Your task to perform on an android device: Check the weather Image 0: 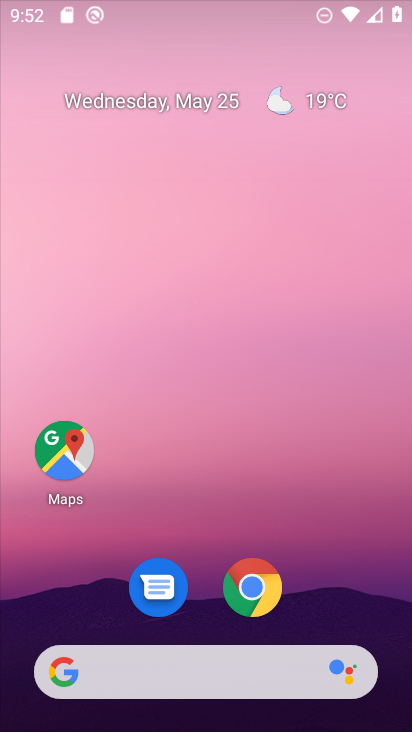
Step 0: press home button
Your task to perform on an android device: Check the weather Image 1: 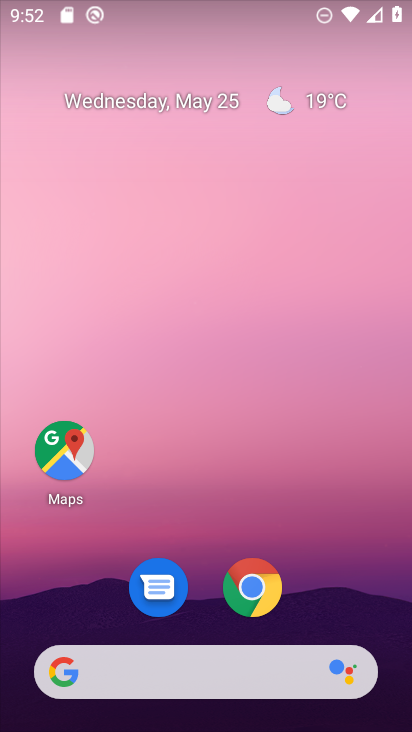
Step 1: click (314, 94)
Your task to perform on an android device: Check the weather Image 2: 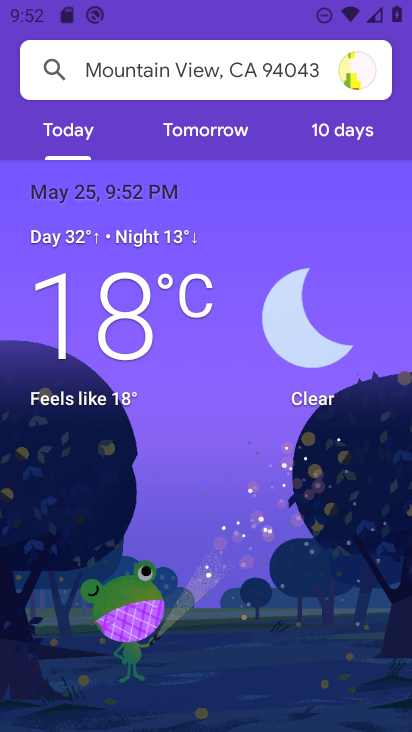
Step 2: drag from (283, 609) to (251, 292)
Your task to perform on an android device: Check the weather Image 3: 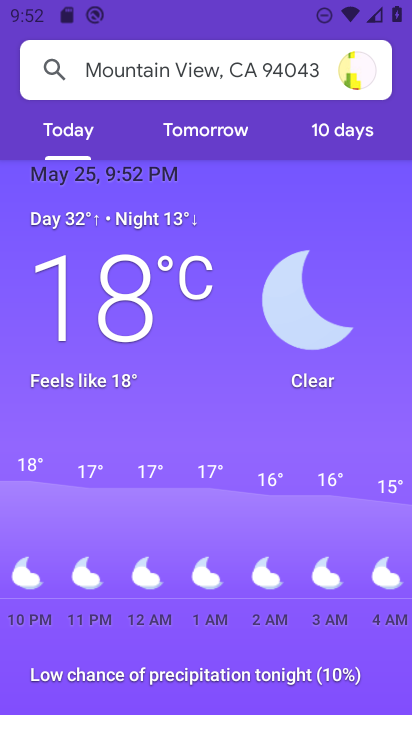
Step 3: drag from (386, 578) to (117, 581)
Your task to perform on an android device: Check the weather Image 4: 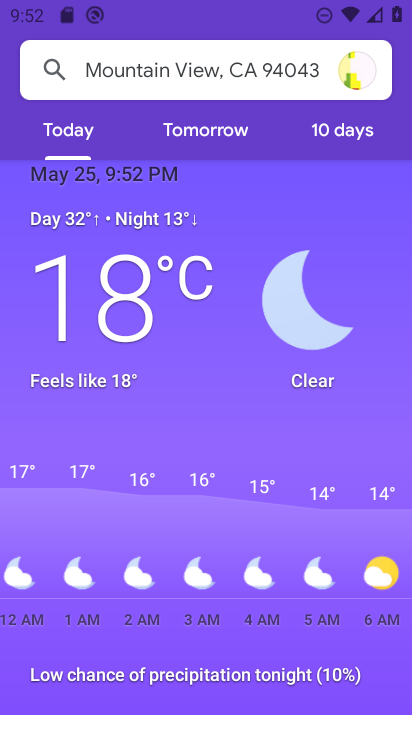
Step 4: drag from (371, 578) to (32, 570)
Your task to perform on an android device: Check the weather Image 5: 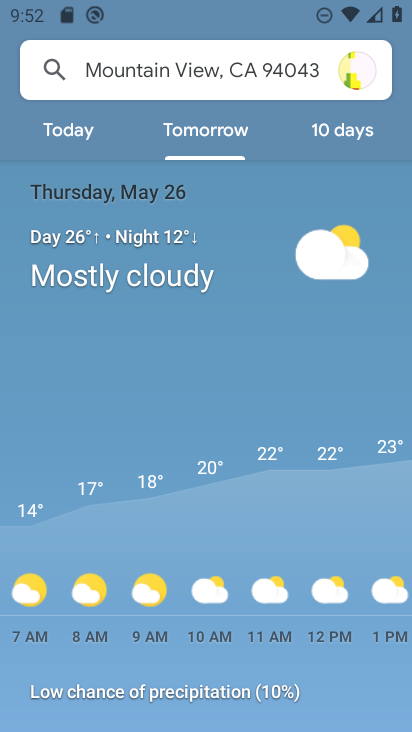
Step 5: drag from (32, 570) to (308, 578)
Your task to perform on an android device: Check the weather Image 6: 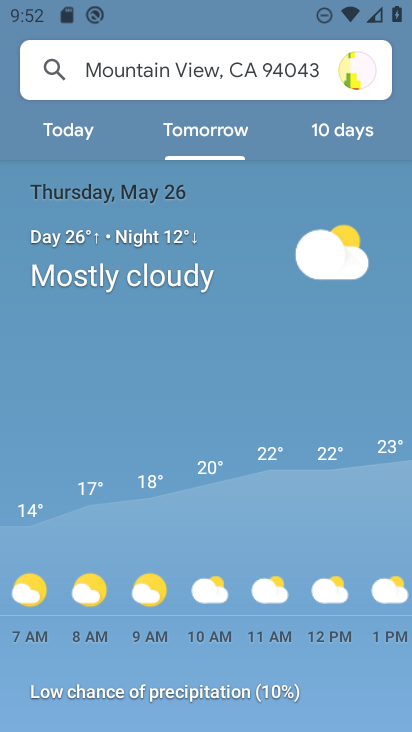
Step 6: drag from (7, 608) to (400, 565)
Your task to perform on an android device: Check the weather Image 7: 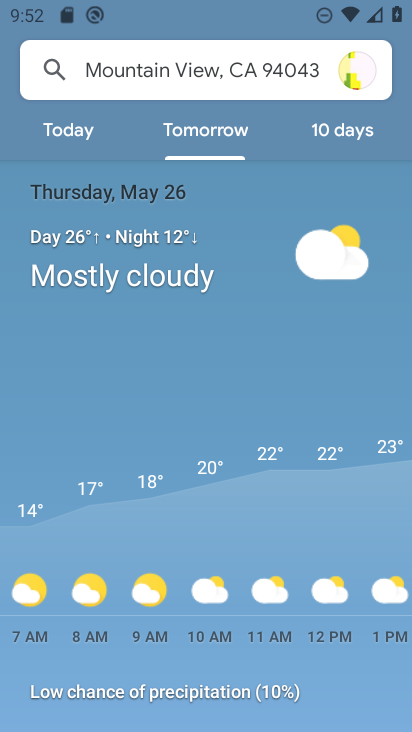
Step 7: click (66, 132)
Your task to perform on an android device: Check the weather Image 8: 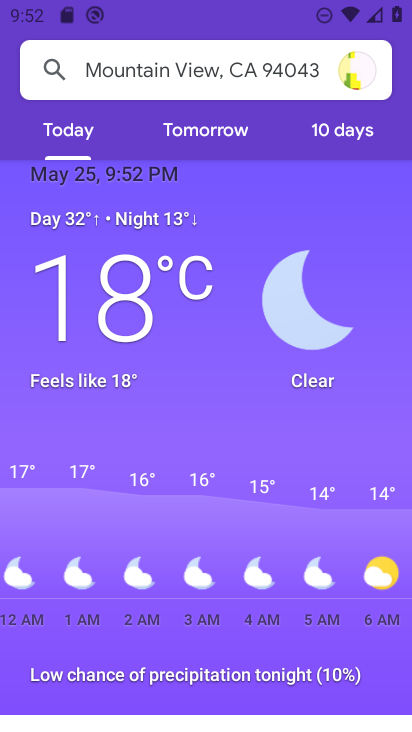
Step 8: task complete